Your task to perform on an android device: Check the news Image 0: 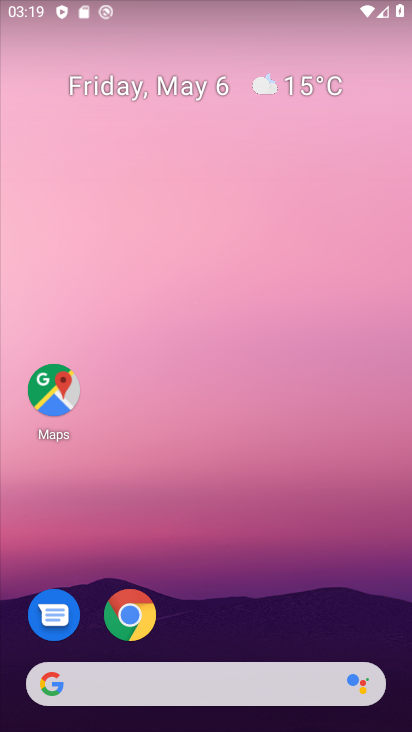
Step 0: drag from (258, 615) to (45, 82)
Your task to perform on an android device: Check the news Image 1: 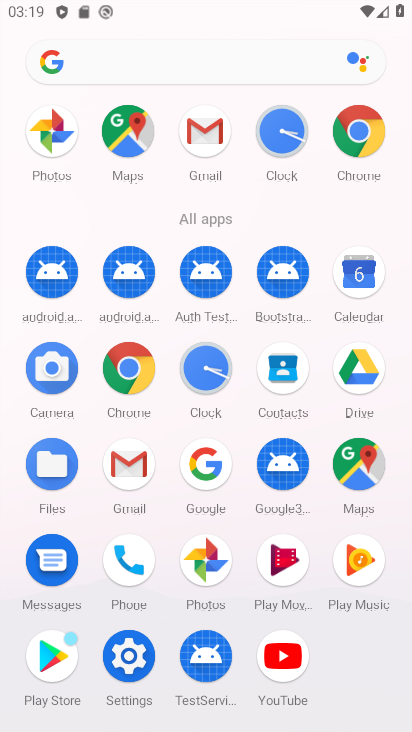
Step 1: task complete